Your task to perform on an android device: turn pop-ups off in chrome Image 0: 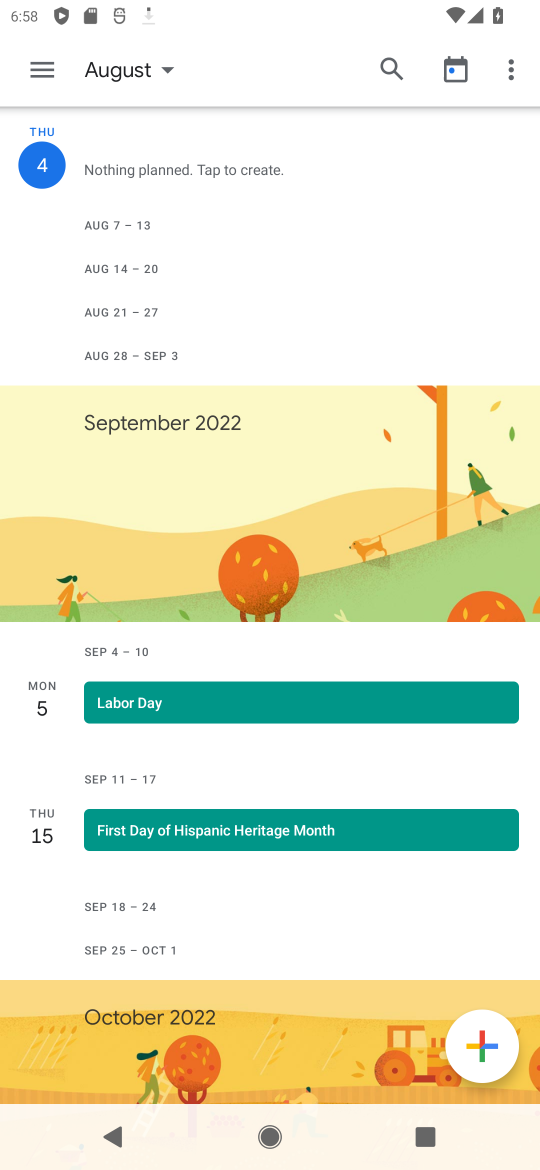
Step 0: press home button
Your task to perform on an android device: turn pop-ups off in chrome Image 1: 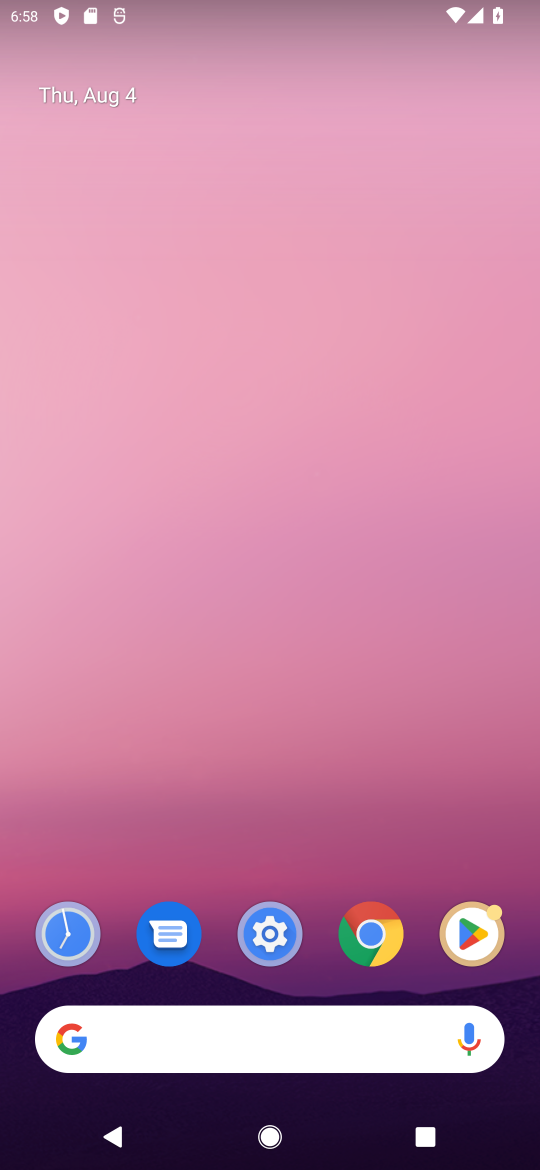
Step 1: click (392, 926)
Your task to perform on an android device: turn pop-ups off in chrome Image 2: 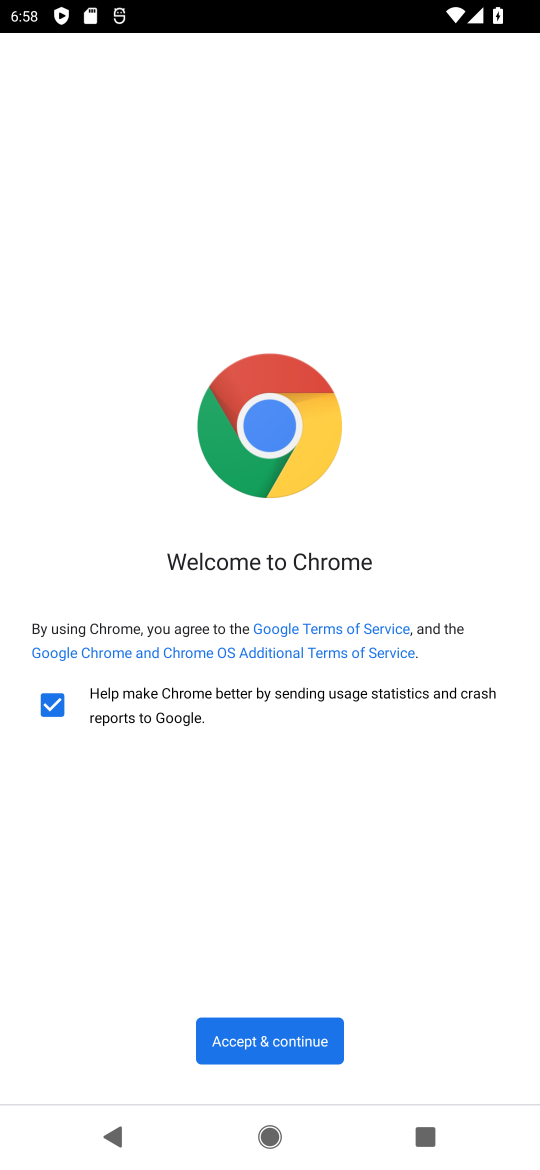
Step 2: click (271, 1054)
Your task to perform on an android device: turn pop-ups off in chrome Image 3: 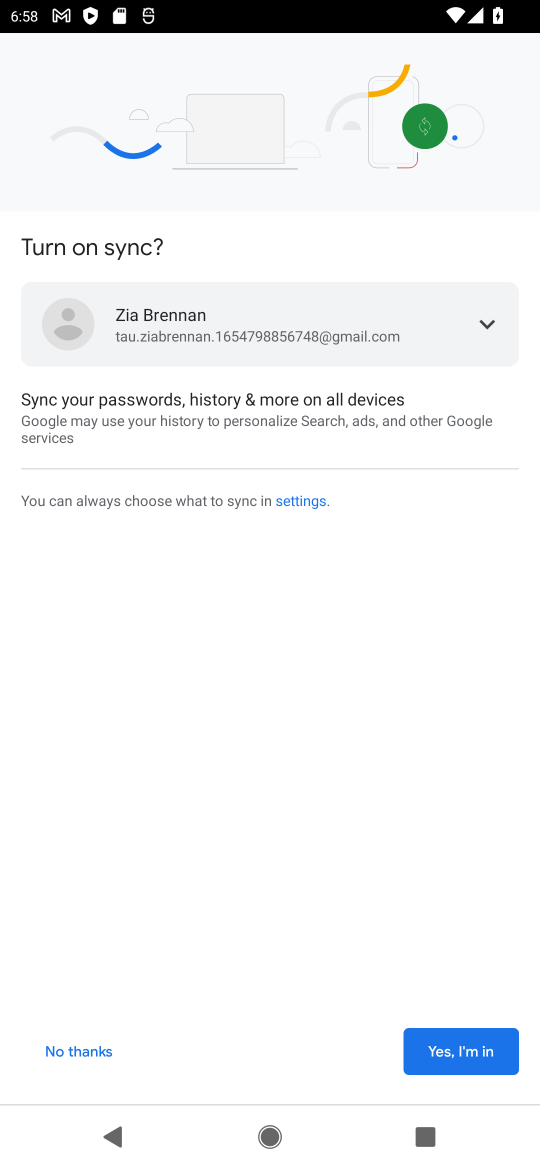
Step 3: click (465, 1044)
Your task to perform on an android device: turn pop-ups off in chrome Image 4: 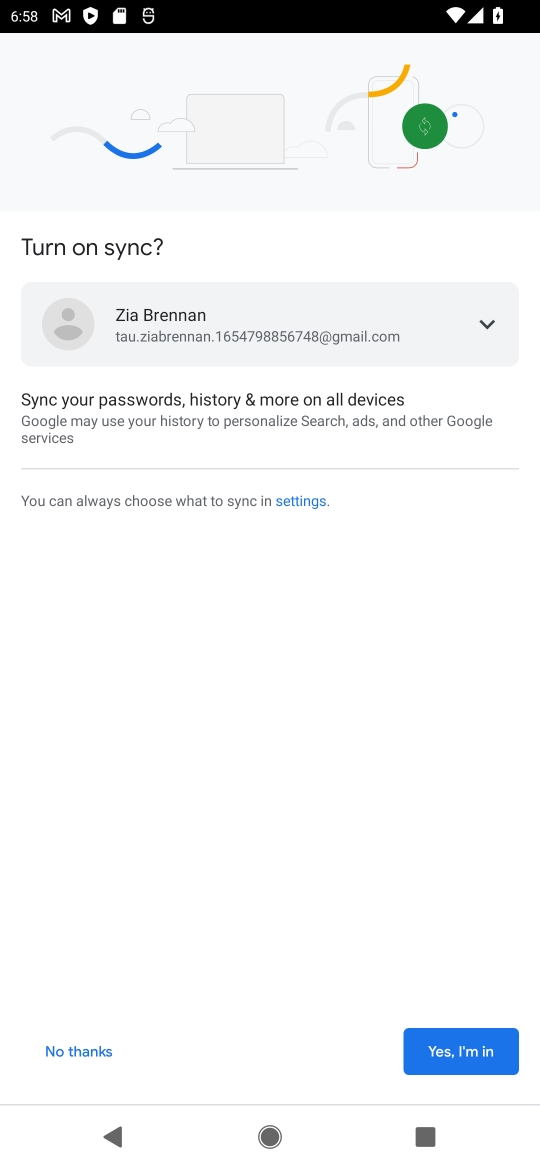
Step 4: click (477, 1058)
Your task to perform on an android device: turn pop-ups off in chrome Image 5: 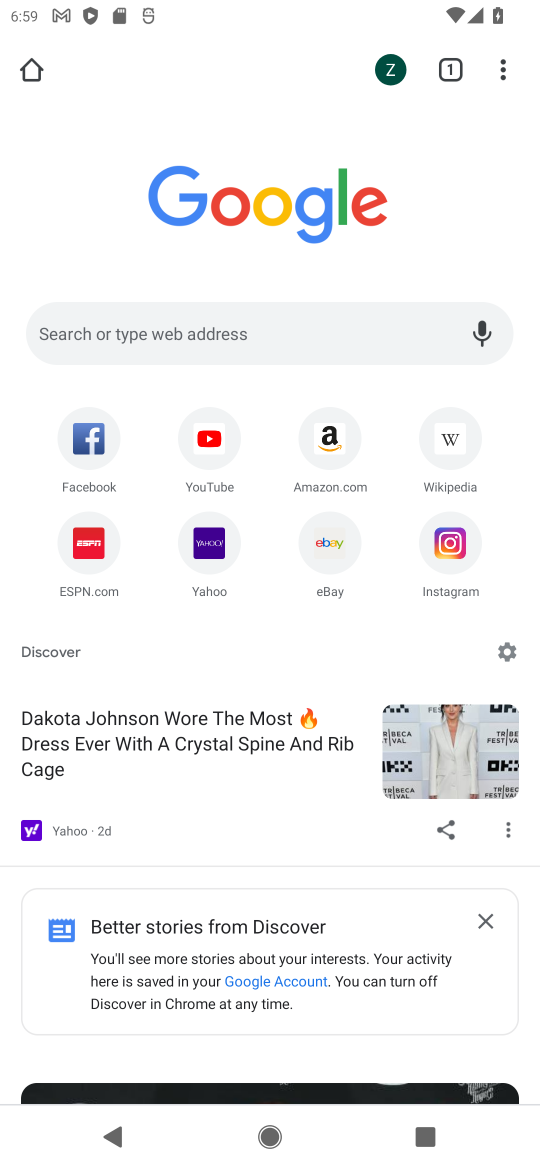
Step 5: drag from (500, 73) to (339, 620)
Your task to perform on an android device: turn pop-ups off in chrome Image 6: 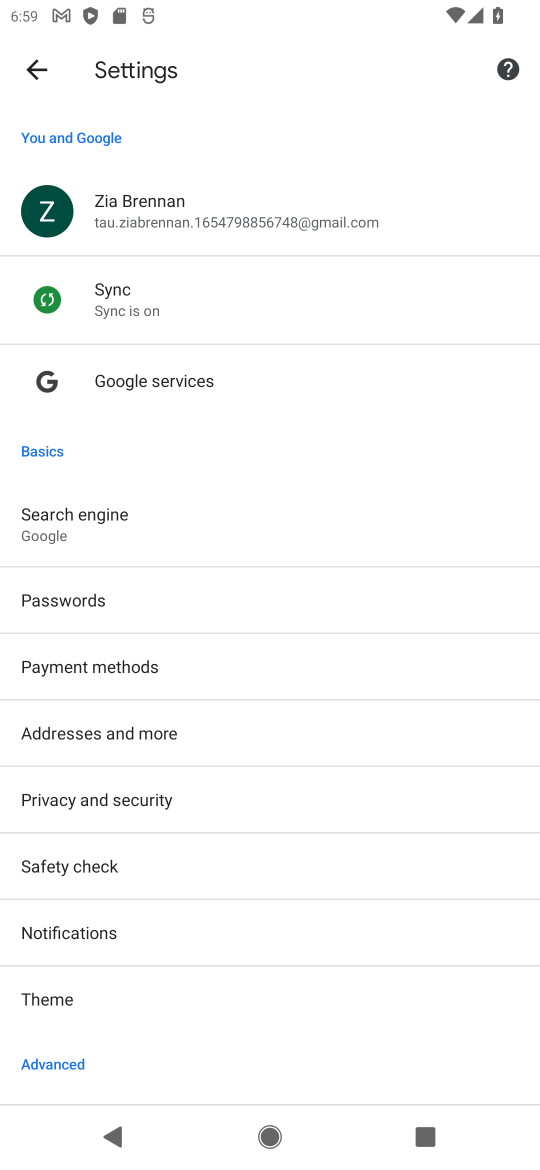
Step 6: drag from (166, 977) to (202, 164)
Your task to perform on an android device: turn pop-ups off in chrome Image 7: 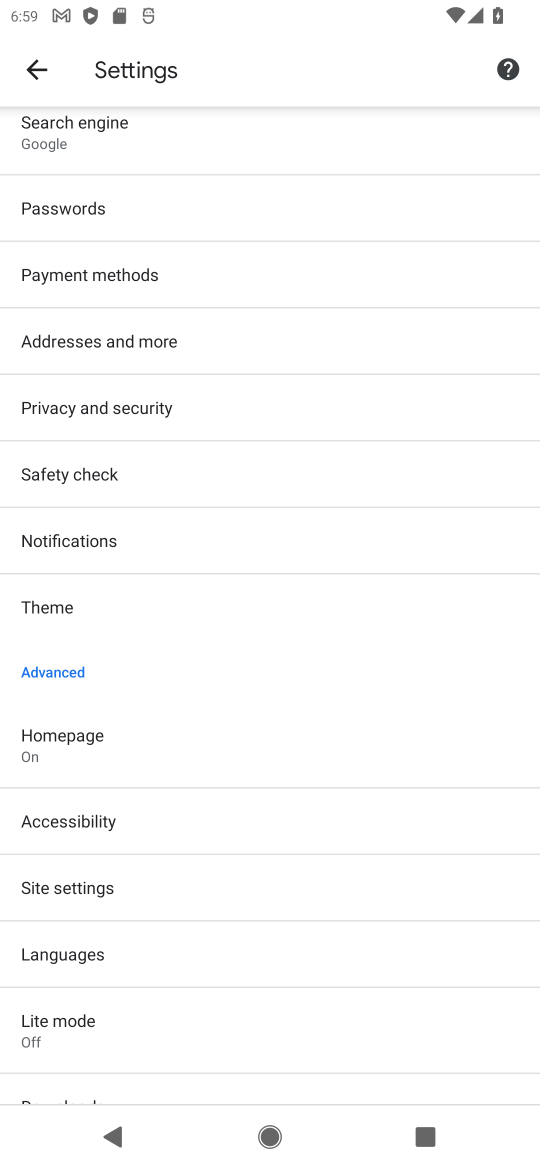
Step 7: click (168, 874)
Your task to perform on an android device: turn pop-ups off in chrome Image 8: 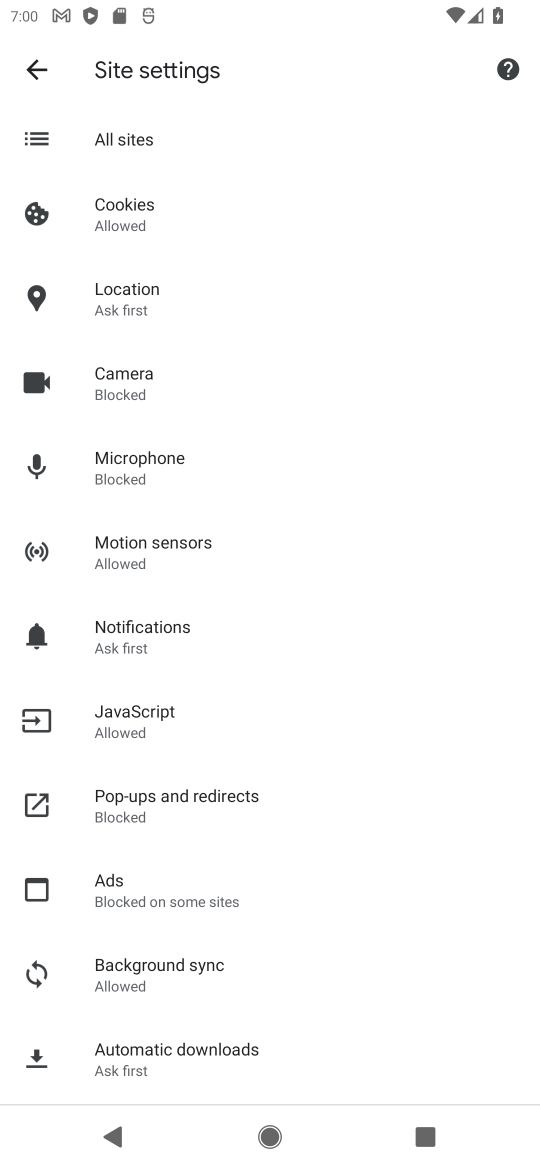
Step 8: click (171, 813)
Your task to perform on an android device: turn pop-ups off in chrome Image 9: 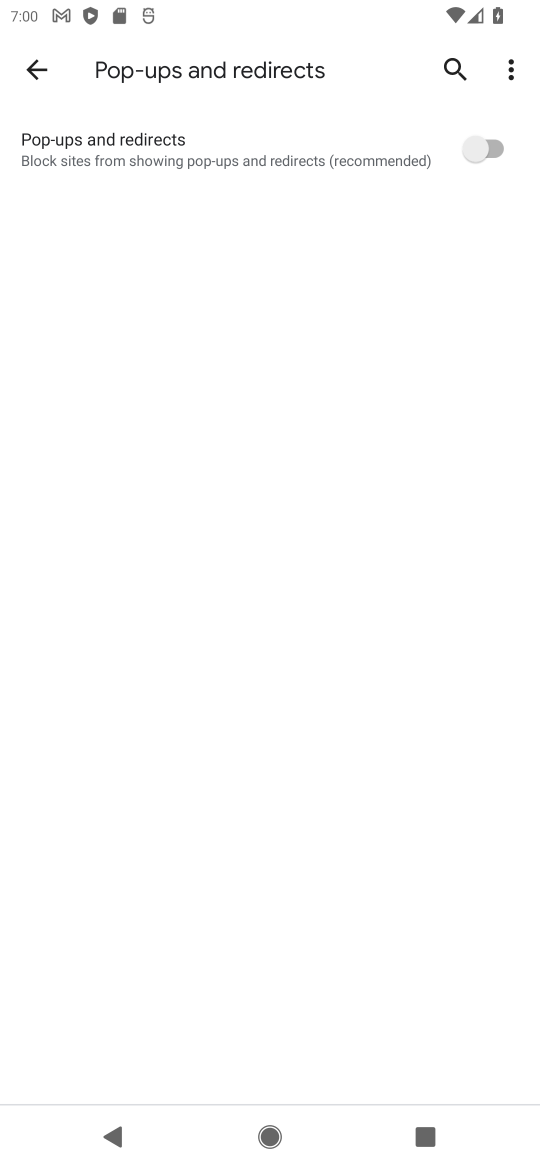
Step 9: task complete